Your task to perform on an android device: Go to accessibility settings Image 0: 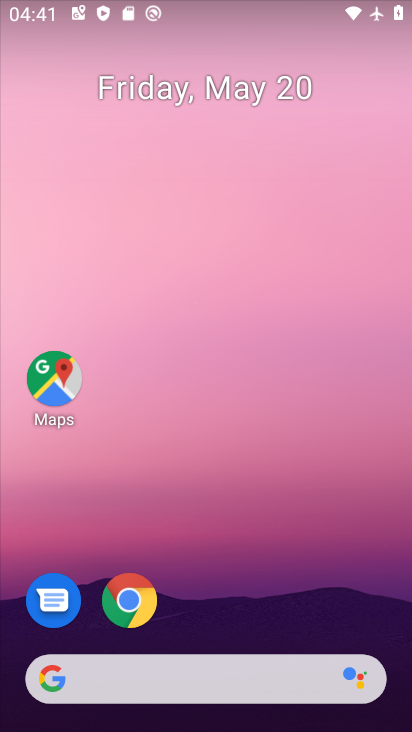
Step 0: drag from (272, 509) to (270, 7)
Your task to perform on an android device: Go to accessibility settings Image 1: 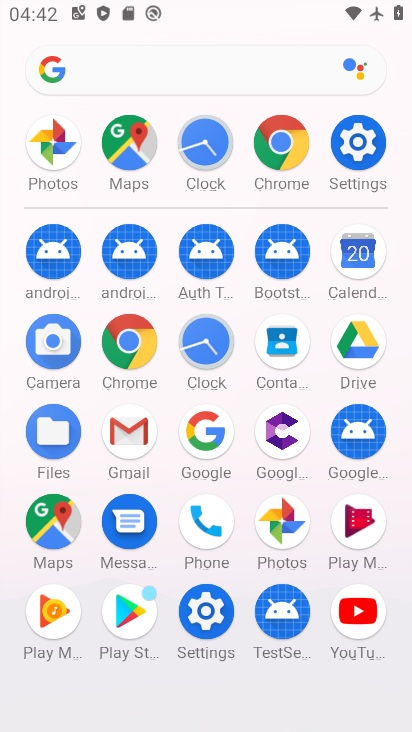
Step 1: drag from (9, 594) to (23, 255)
Your task to perform on an android device: Go to accessibility settings Image 2: 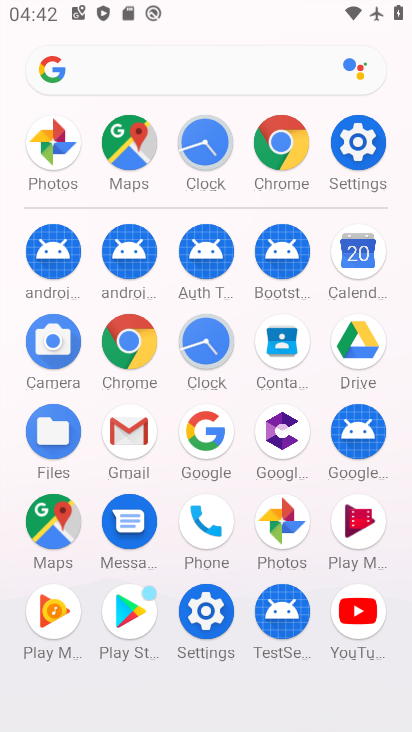
Step 2: click (204, 609)
Your task to perform on an android device: Go to accessibility settings Image 3: 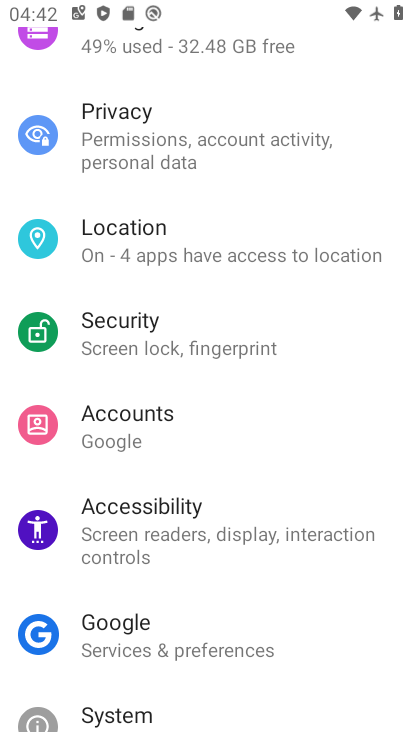
Step 3: click (185, 525)
Your task to perform on an android device: Go to accessibility settings Image 4: 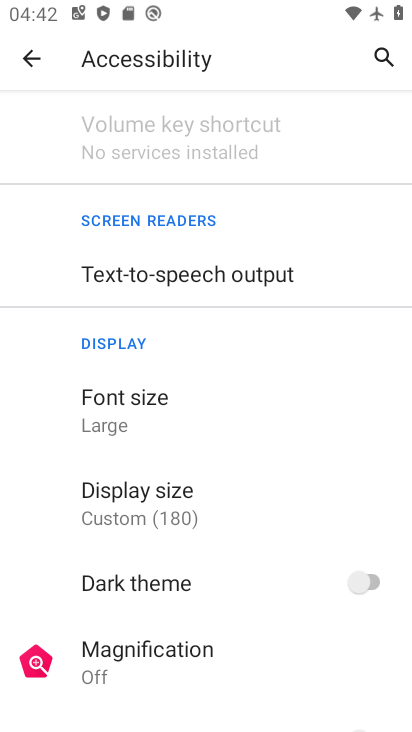
Step 4: task complete